Your task to perform on an android device: Open settings on Google Maps Image 0: 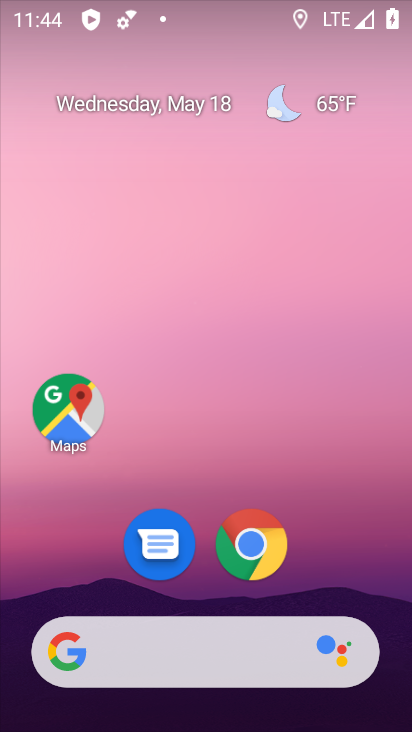
Step 0: drag from (369, 572) to (367, 177)
Your task to perform on an android device: Open settings on Google Maps Image 1: 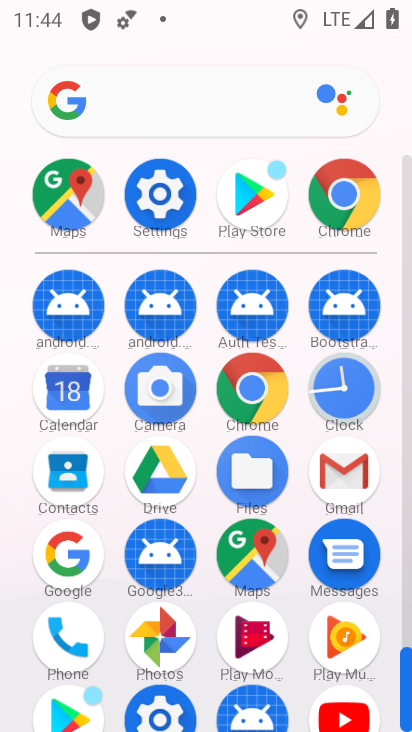
Step 1: click (248, 559)
Your task to perform on an android device: Open settings on Google Maps Image 2: 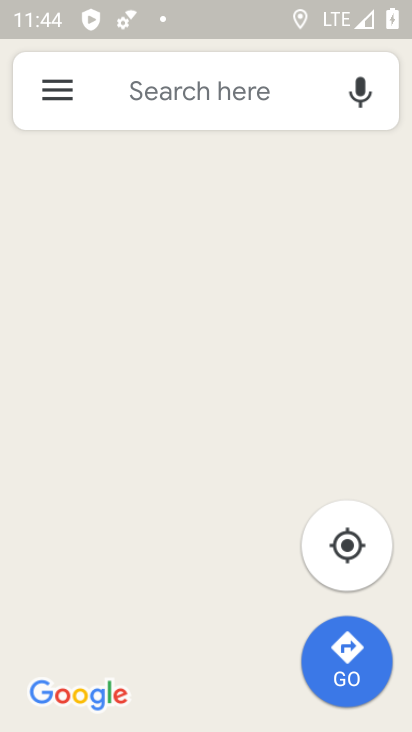
Step 2: task complete